Your task to perform on an android device: turn on the 12-hour format for clock Image 0: 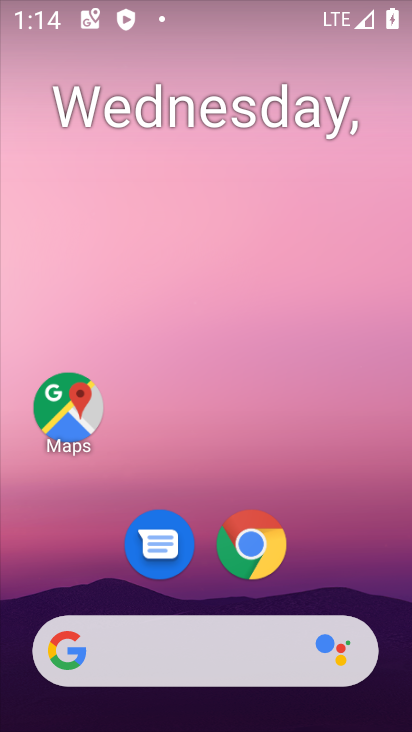
Step 0: drag from (358, 555) to (381, 12)
Your task to perform on an android device: turn on the 12-hour format for clock Image 1: 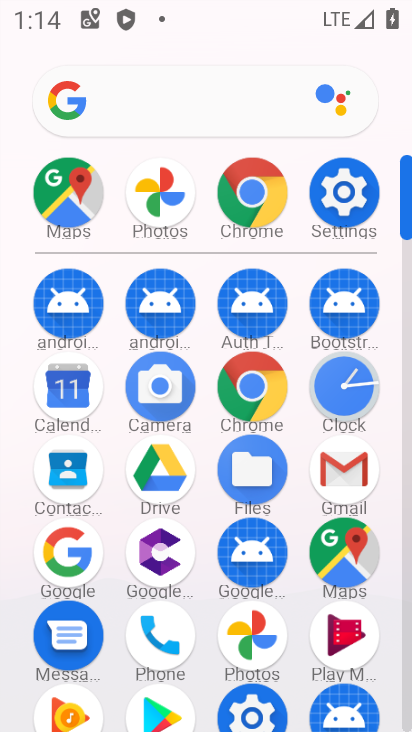
Step 1: click (333, 385)
Your task to perform on an android device: turn on the 12-hour format for clock Image 2: 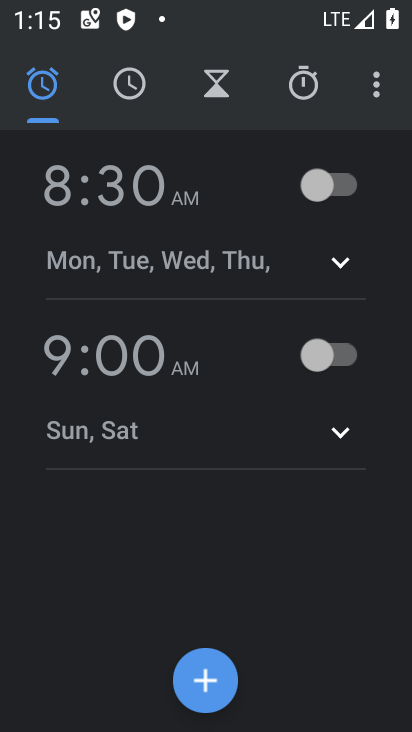
Step 2: click (379, 75)
Your task to perform on an android device: turn on the 12-hour format for clock Image 3: 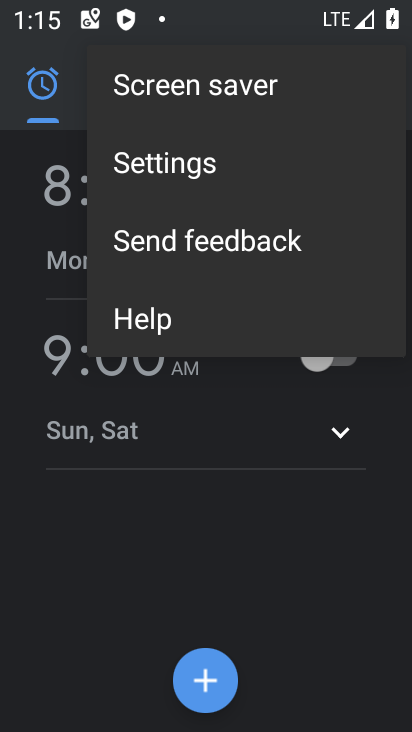
Step 3: click (294, 171)
Your task to perform on an android device: turn on the 12-hour format for clock Image 4: 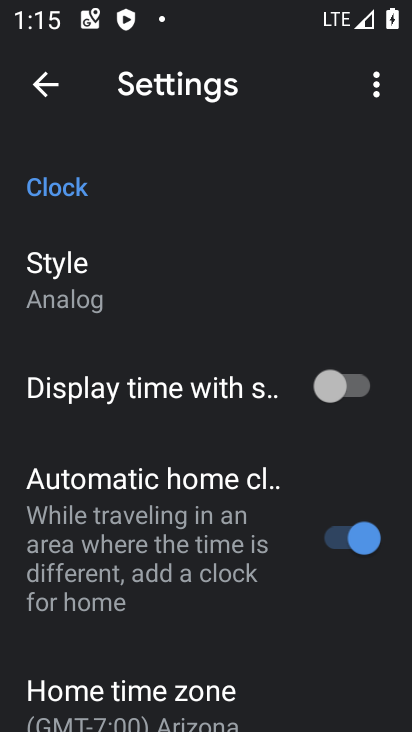
Step 4: drag from (233, 636) to (289, 142)
Your task to perform on an android device: turn on the 12-hour format for clock Image 5: 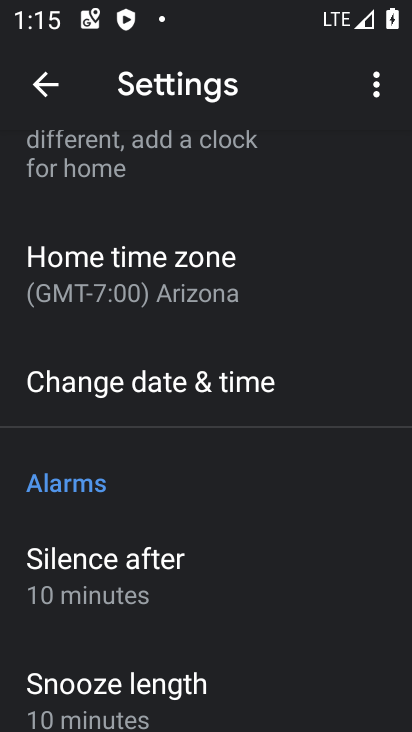
Step 5: click (197, 415)
Your task to perform on an android device: turn on the 12-hour format for clock Image 6: 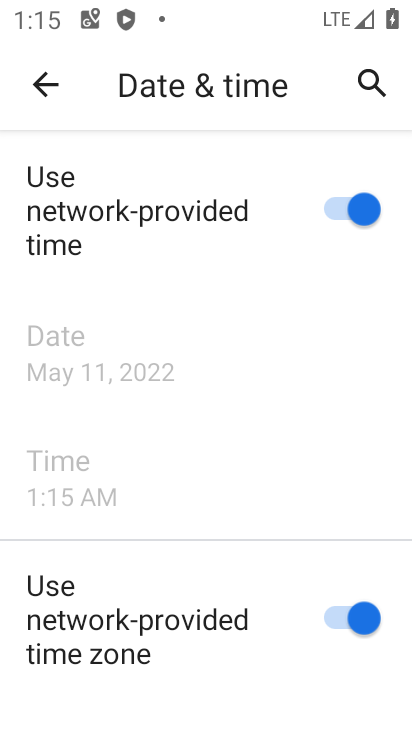
Step 6: task complete